Your task to perform on an android device: open app "Yahoo Mail" (install if not already installed) and enter user name: "lawsuit@inbox.com" and password: "pooch" Image 0: 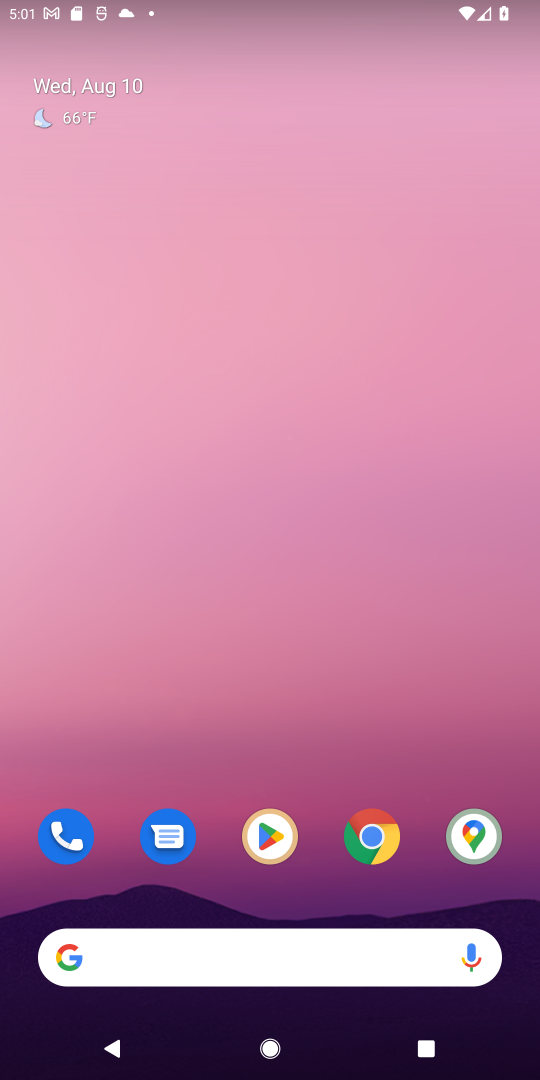
Step 0: drag from (133, 1002) to (152, 516)
Your task to perform on an android device: open app "Yahoo Mail" (install if not already installed) and enter user name: "lawsuit@inbox.com" and password: "pooch" Image 1: 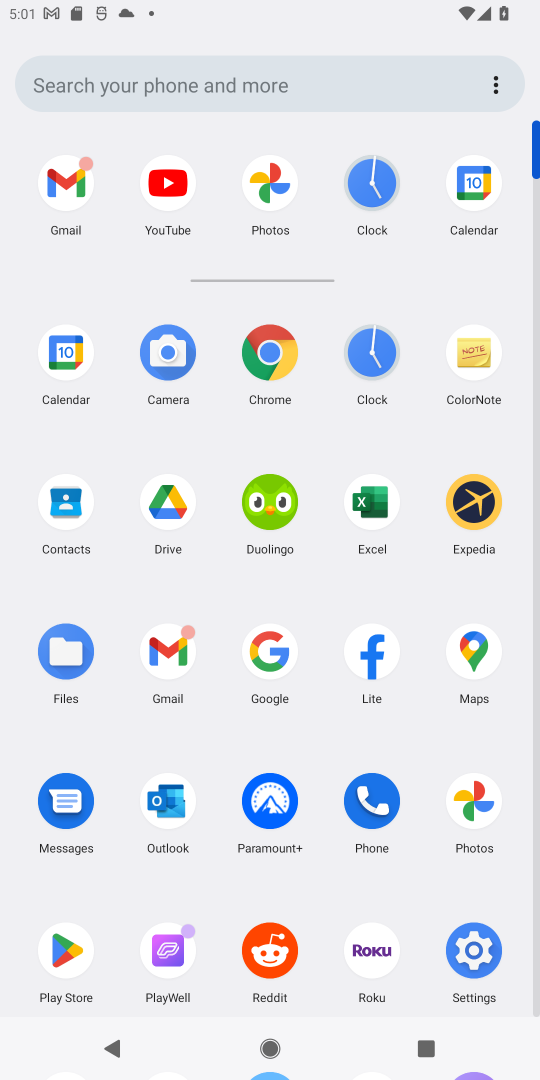
Step 1: click (79, 945)
Your task to perform on an android device: open app "Yahoo Mail" (install if not already installed) and enter user name: "lawsuit@inbox.com" and password: "pooch" Image 2: 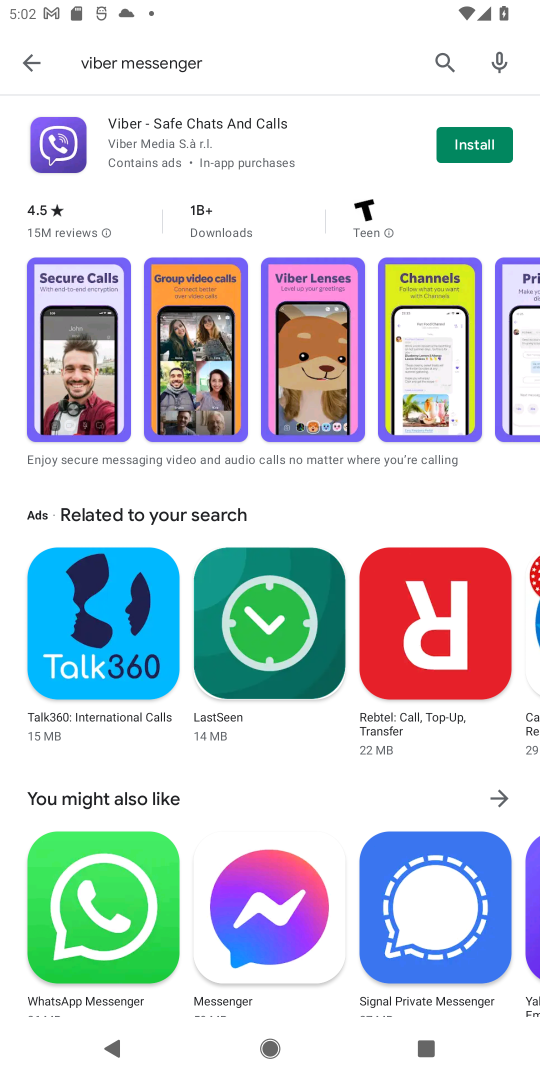
Step 2: click (40, 74)
Your task to perform on an android device: open app "Yahoo Mail" (install if not already installed) and enter user name: "lawsuit@inbox.com" and password: "pooch" Image 3: 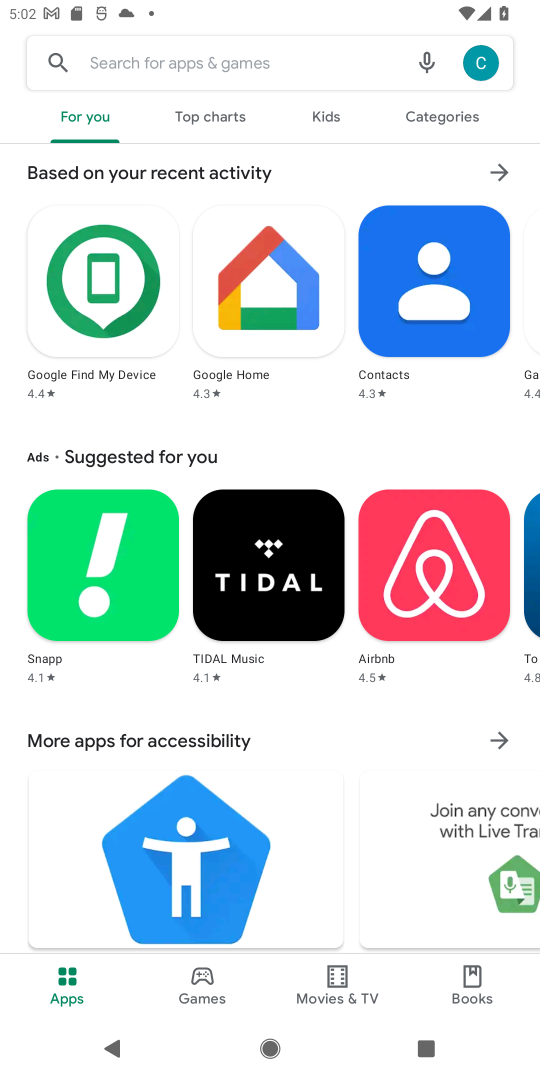
Step 3: click (206, 49)
Your task to perform on an android device: open app "Yahoo Mail" (install if not already installed) and enter user name: "lawsuit@inbox.com" and password: "pooch" Image 4: 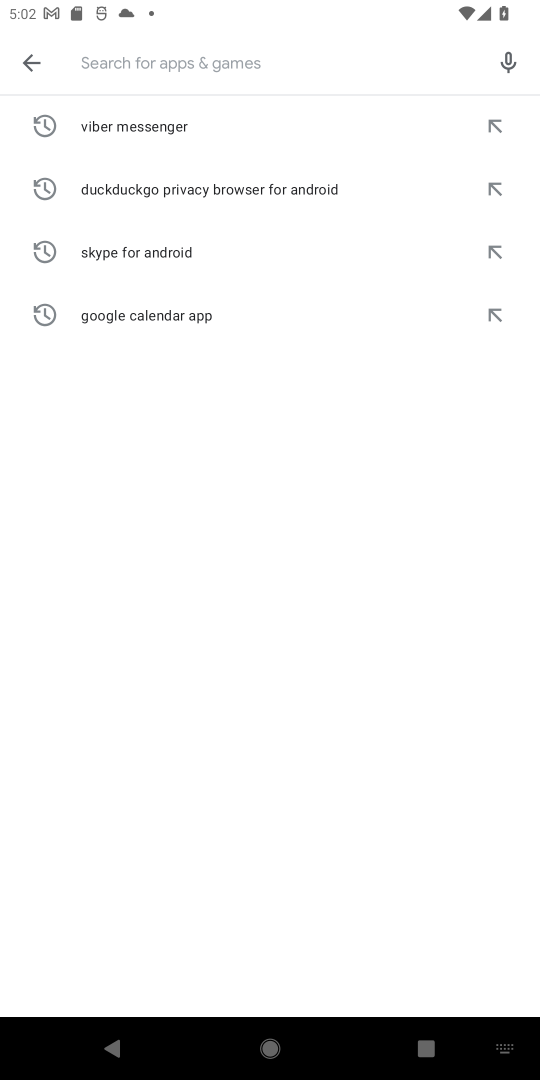
Step 4: type "yahoo mail "
Your task to perform on an android device: open app "Yahoo Mail" (install if not already installed) and enter user name: "lawsuit@inbox.com" and password: "pooch" Image 5: 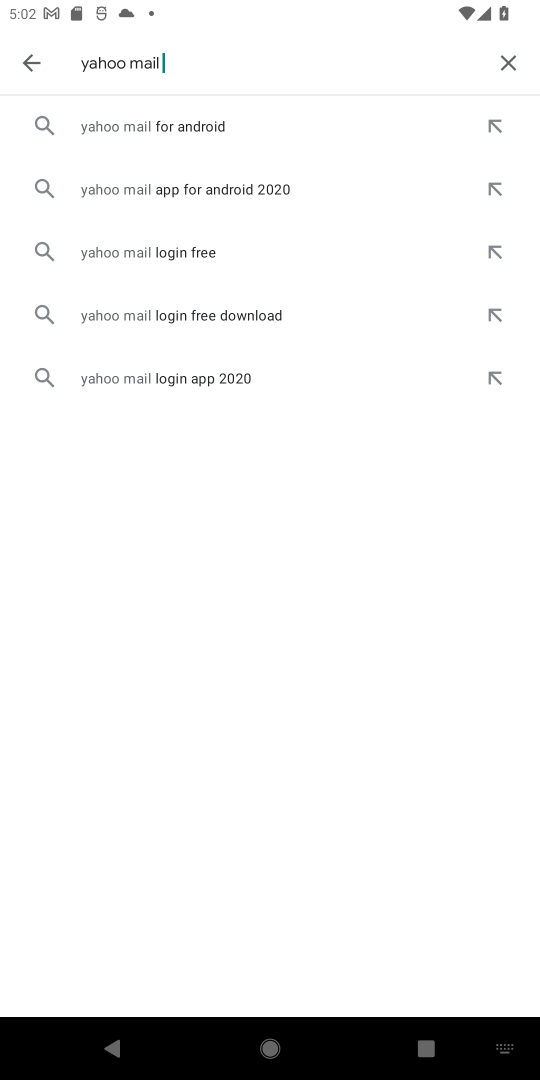
Step 5: click (176, 118)
Your task to perform on an android device: open app "Yahoo Mail" (install if not already installed) and enter user name: "lawsuit@inbox.com" and password: "pooch" Image 6: 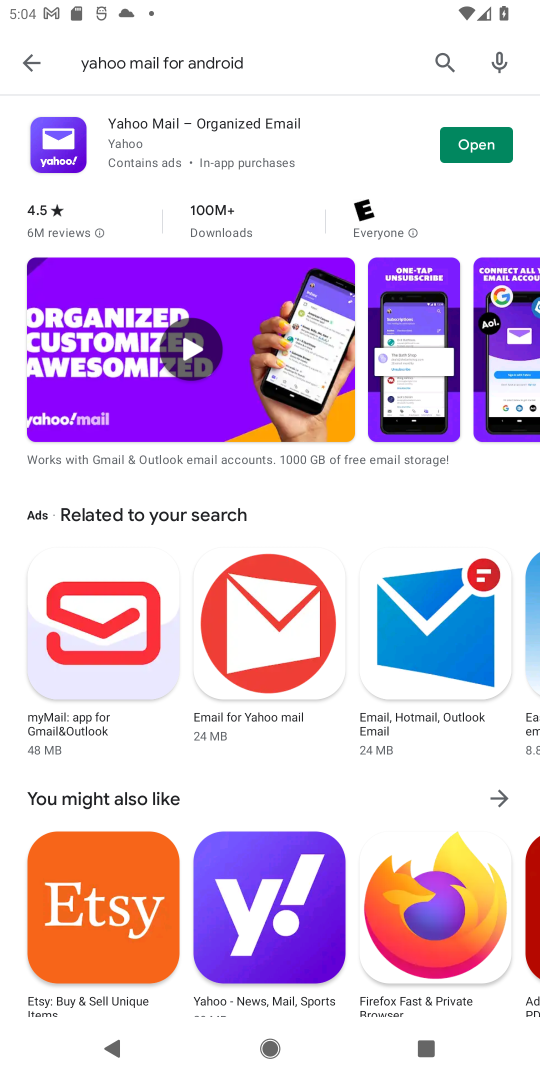
Step 6: task complete